Your task to perform on an android device: Open Amazon Image 0: 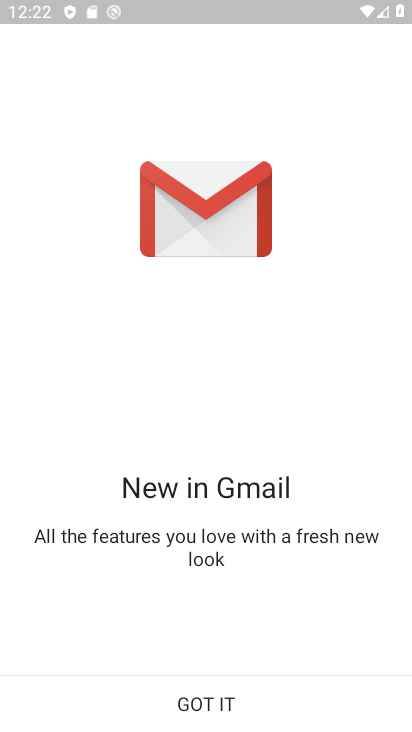
Step 0: press home button
Your task to perform on an android device: Open Amazon Image 1: 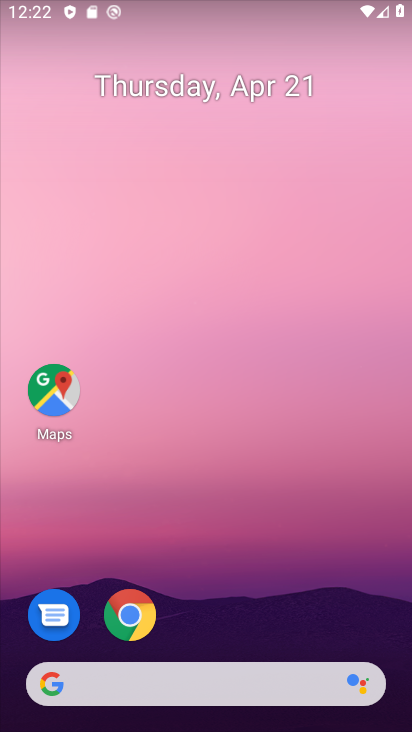
Step 1: click (131, 602)
Your task to perform on an android device: Open Amazon Image 2: 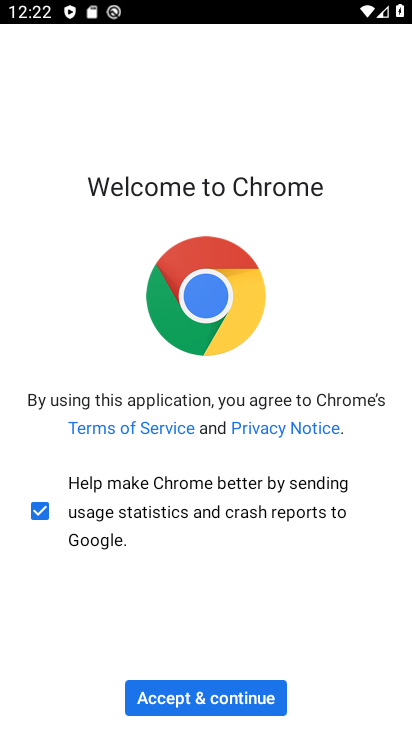
Step 2: click (216, 689)
Your task to perform on an android device: Open Amazon Image 3: 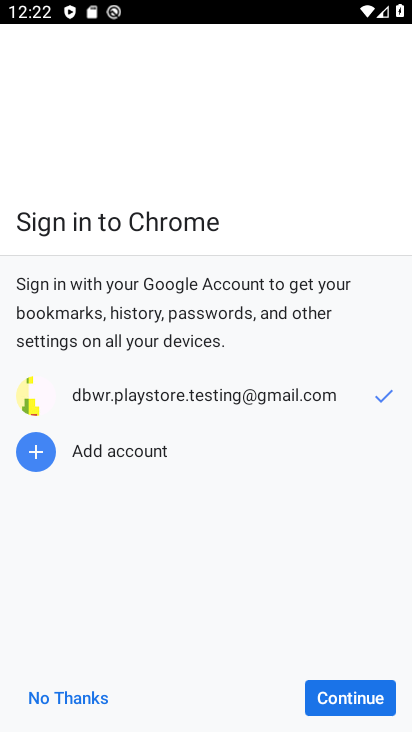
Step 3: click (362, 706)
Your task to perform on an android device: Open Amazon Image 4: 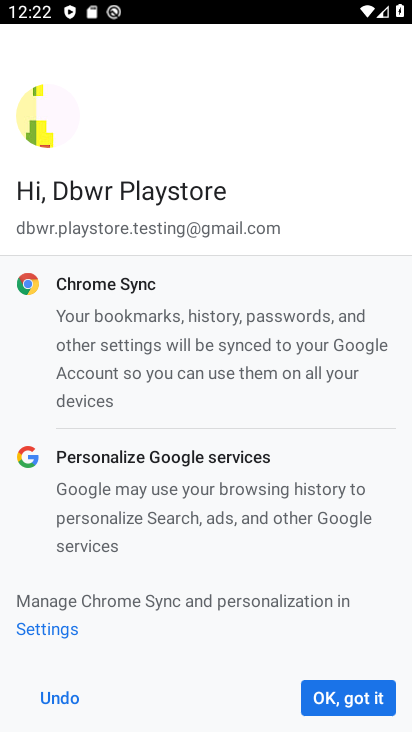
Step 4: click (362, 706)
Your task to perform on an android device: Open Amazon Image 5: 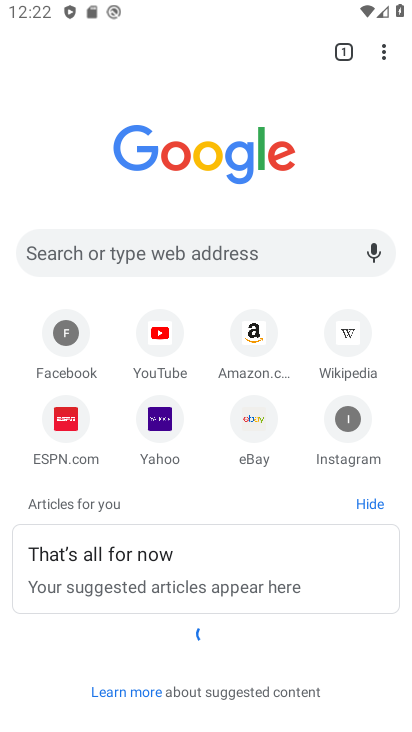
Step 5: click (262, 340)
Your task to perform on an android device: Open Amazon Image 6: 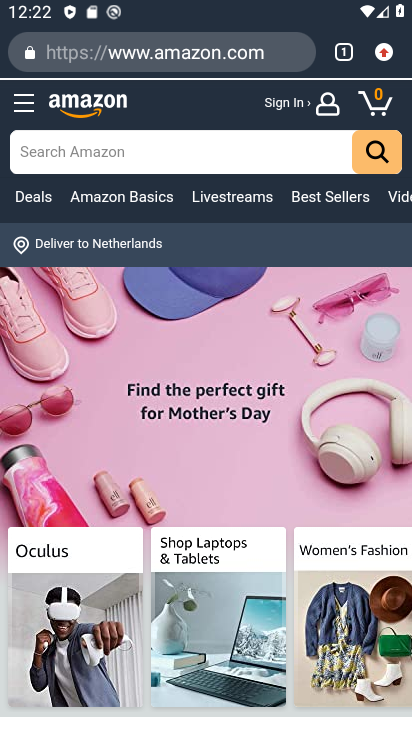
Step 6: task complete